Your task to perform on an android device: What's on my calendar today? Image 0: 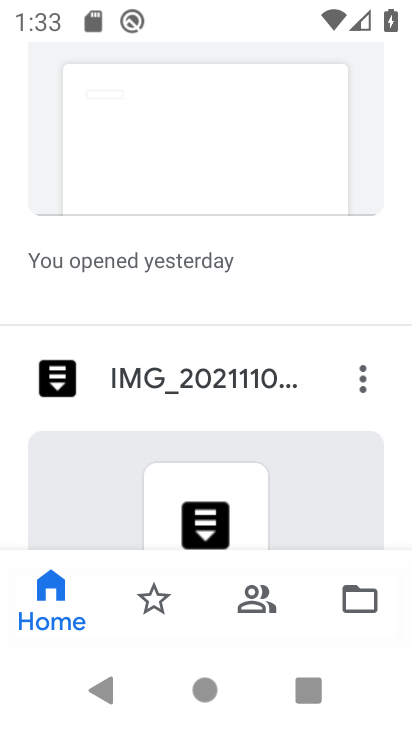
Step 0: press home button
Your task to perform on an android device: What's on my calendar today? Image 1: 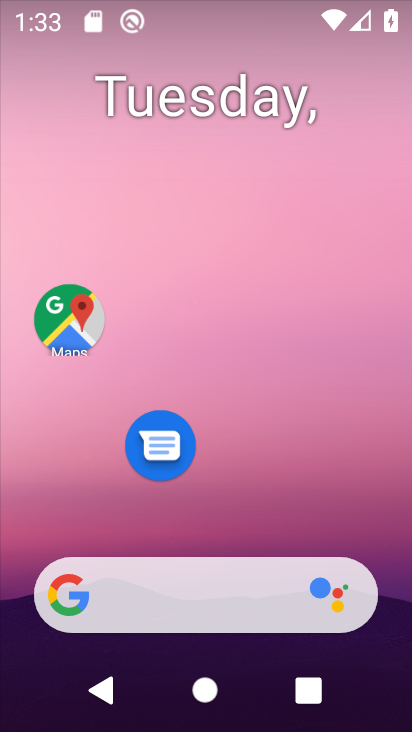
Step 1: drag from (282, 495) to (194, 131)
Your task to perform on an android device: What's on my calendar today? Image 2: 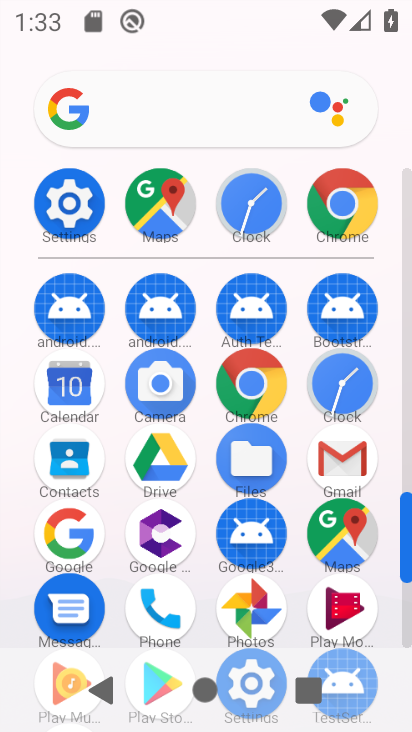
Step 2: click (68, 379)
Your task to perform on an android device: What's on my calendar today? Image 3: 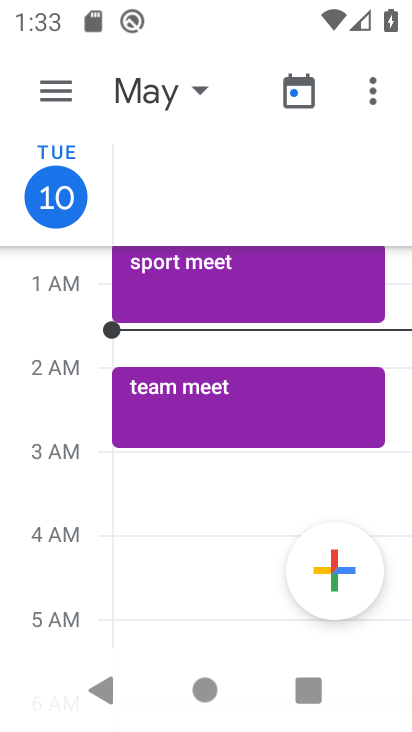
Step 3: drag from (189, 557) to (157, 427)
Your task to perform on an android device: What's on my calendar today? Image 4: 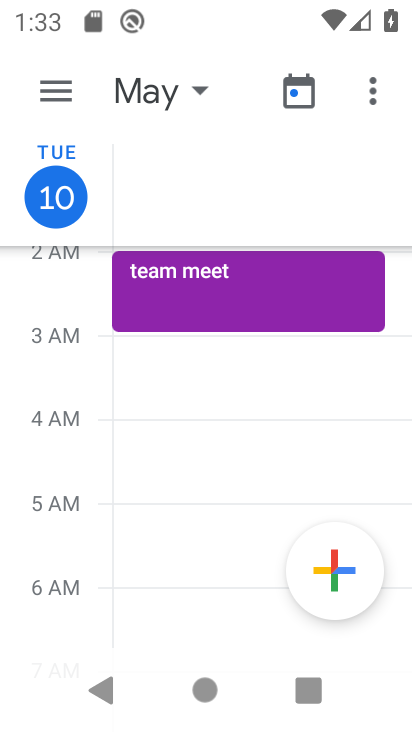
Step 4: click (197, 88)
Your task to perform on an android device: What's on my calendar today? Image 5: 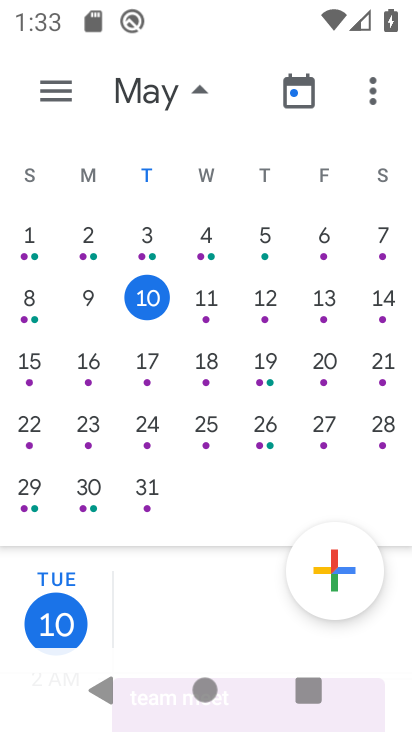
Step 5: click (78, 295)
Your task to perform on an android device: What's on my calendar today? Image 6: 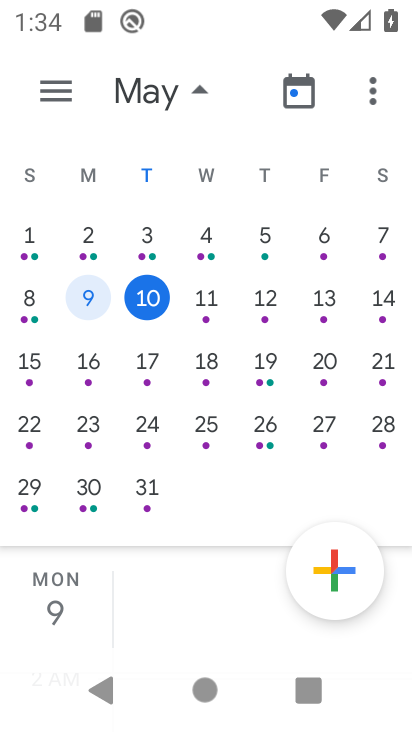
Step 6: task complete